Your task to perform on an android device: When is my next appointment? Image 0: 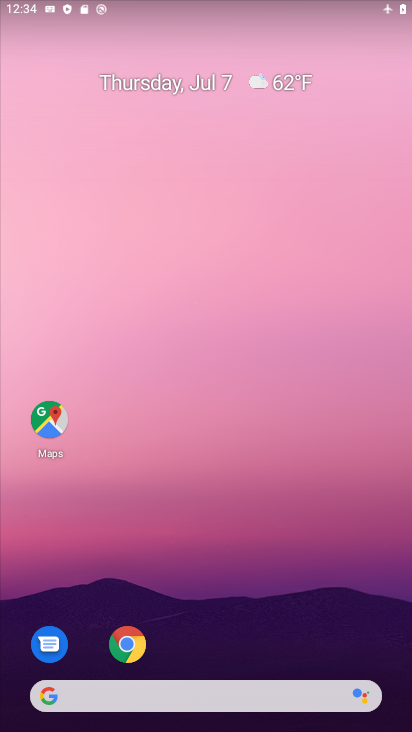
Step 0: drag from (12, 624) to (247, 124)
Your task to perform on an android device: When is my next appointment? Image 1: 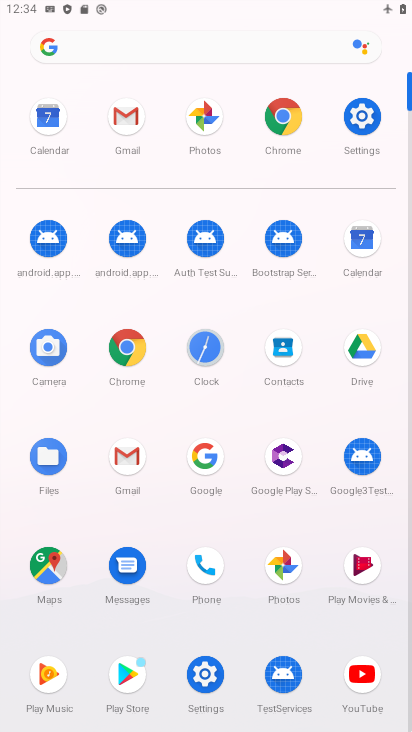
Step 1: click (374, 235)
Your task to perform on an android device: When is my next appointment? Image 2: 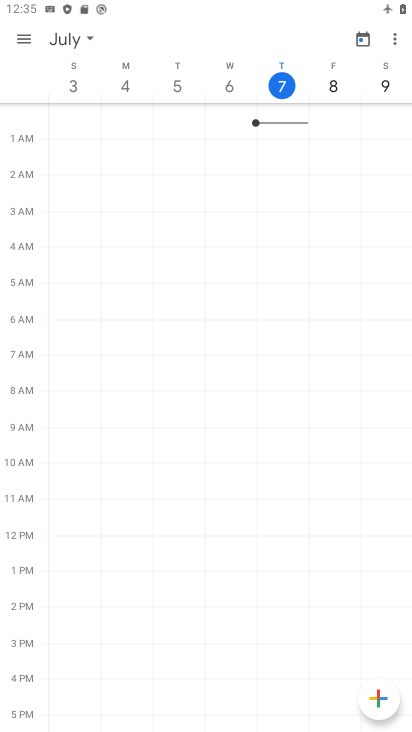
Step 2: task complete